Your task to perform on an android device: Open Amazon Image 0: 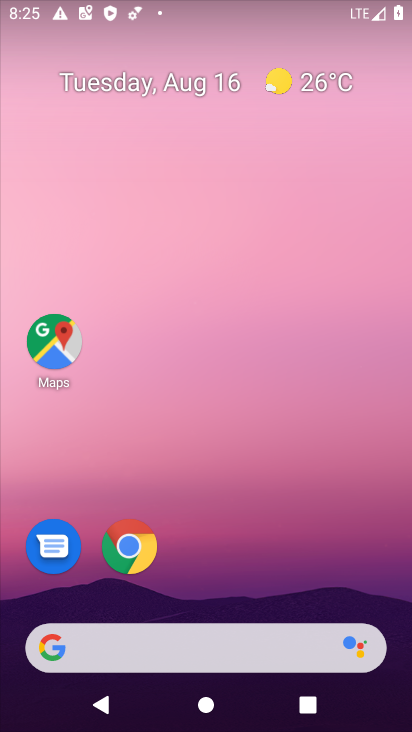
Step 0: click (129, 544)
Your task to perform on an android device: Open Amazon Image 1: 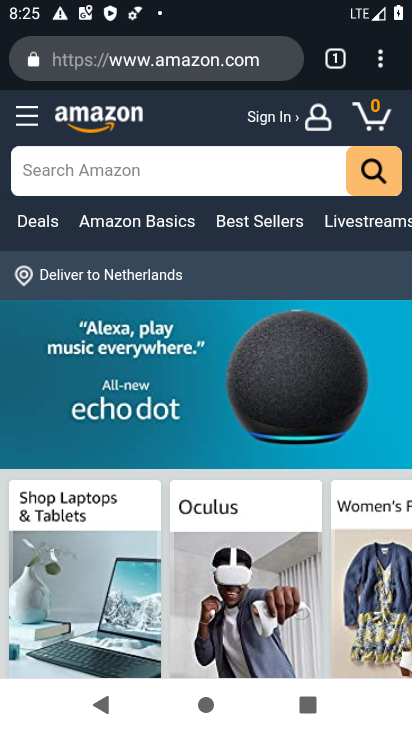
Step 1: task complete